Your task to perform on an android device: open a new tab in the chrome app Image 0: 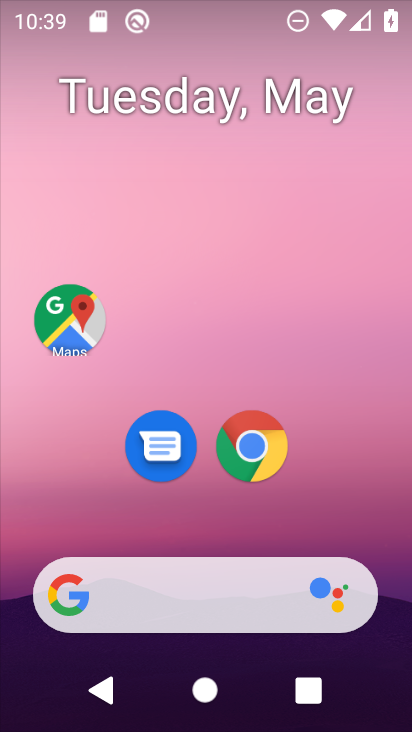
Step 0: click (260, 428)
Your task to perform on an android device: open a new tab in the chrome app Image 1: 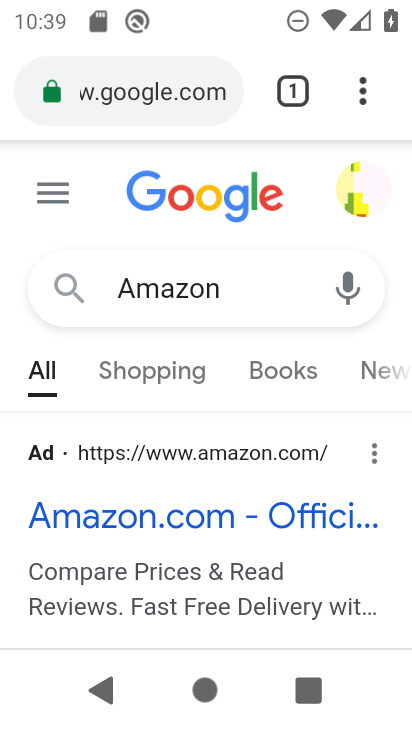
Step 1: click (359, 109)
Your task to perform on an android device: open a new tab in the chrome app Image 2: 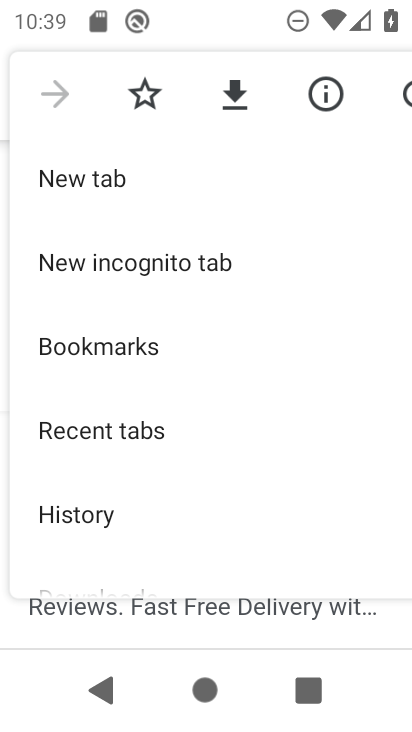
Step 2: click (150, 184)
Your task to perform on an android device: open a new tab in the chrome app Image 3: 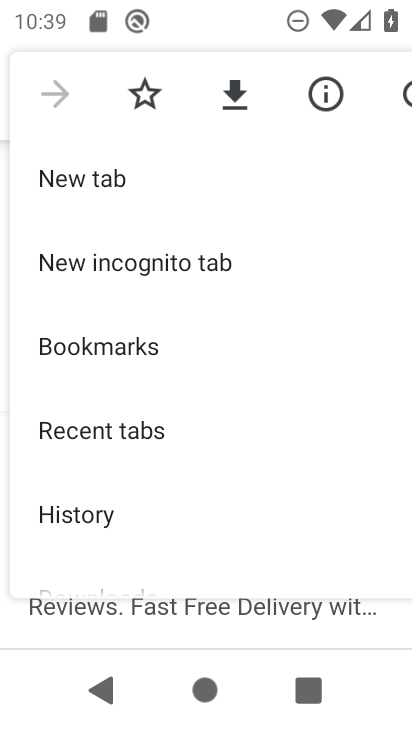
Step 3: click (88, 189)
Your task to perform on an android device: open a new tab in the chrome app Image 4: 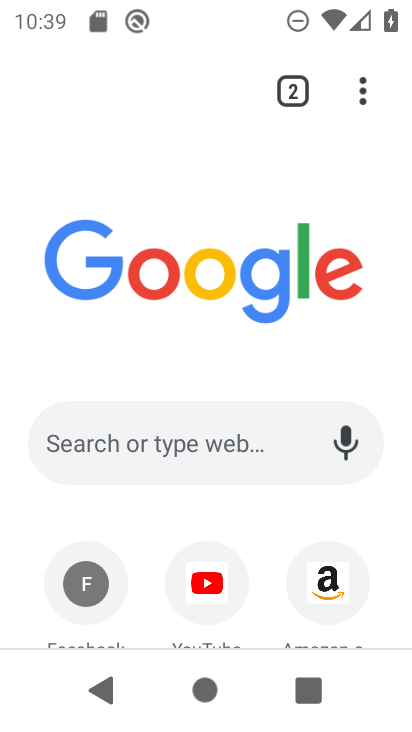
Step 4: task complete